Your task to perform on an android device: Set the phone to "Do not disturb". Image 0: 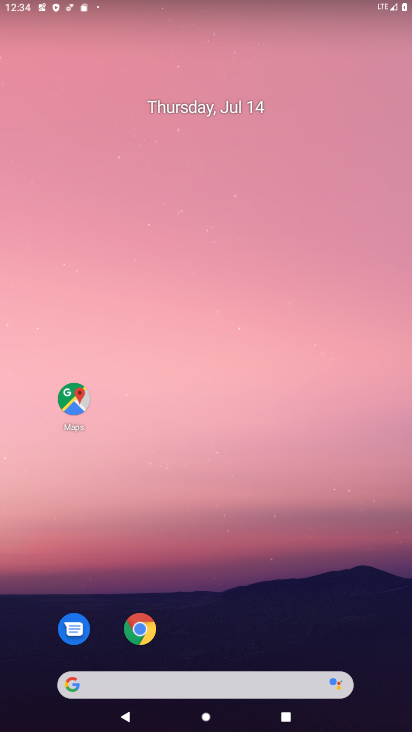
Step 0: drag from (238, 459) to (6, 258)
Your task to perform on an android device: Set the phone to "Do not disturb". Image 1: 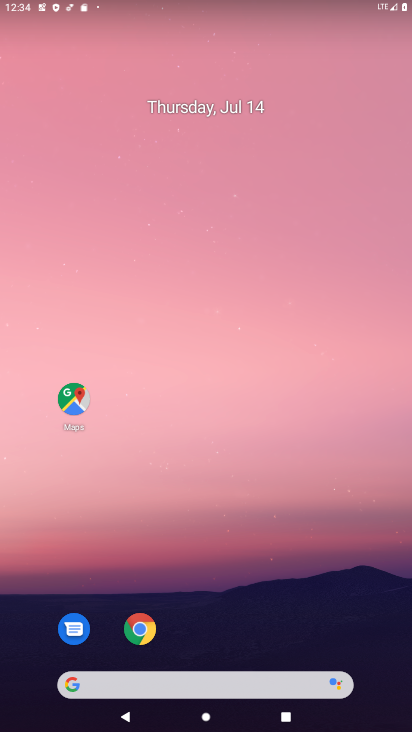
Step 1: drag from (296, 605) to (259, 51)
Your task to perform on an android device: Set the phone to "Do not disturb". Image 2: 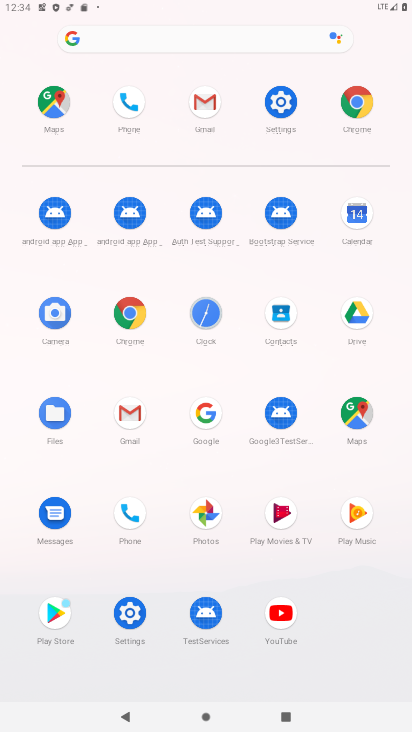
Step 2: click (294, 96)
Your task to perform on an android device: Set the phone to "Do not disturb". Image 3: 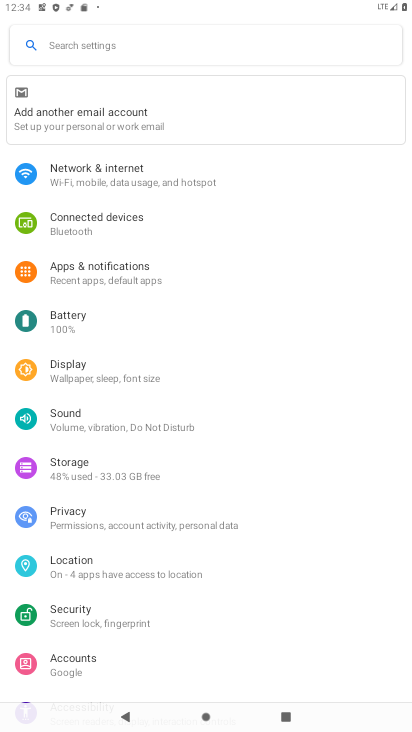
Step 3: drag from (133, 597) to (94, 314)
Your task to perform on an android device: Set the phone to "Do not disturb". Image 4: 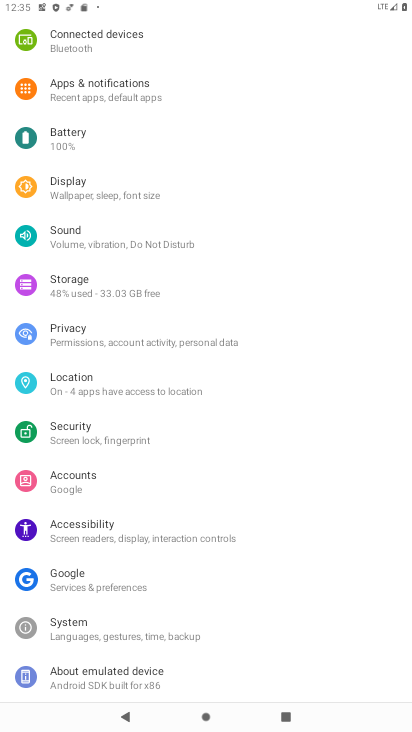
Step 4: click (136, 244)
Your task to perform on an android device: Set the phone to "Do not disturb". Image 5: 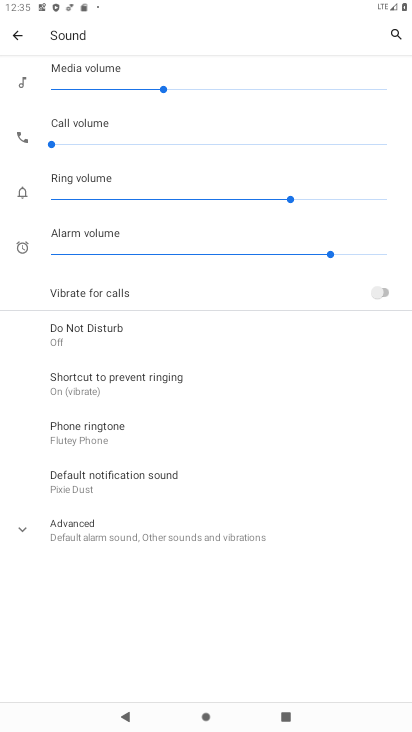
Step 5: click (106, 339)
Your task to perform on an android device: Set the phone to "Do not disturb". Image 6: 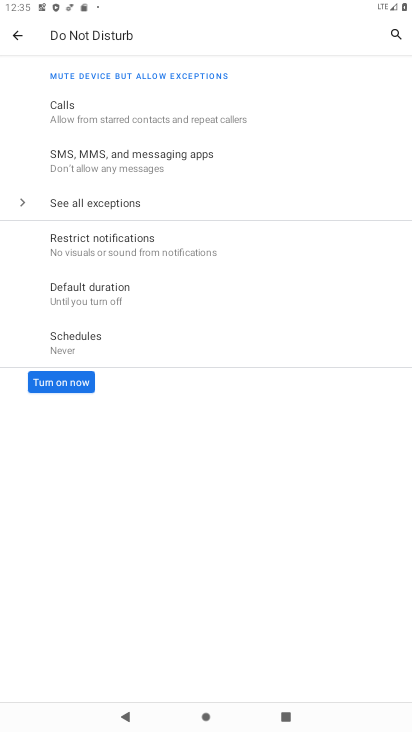
Step 6: click (73, 387)
Your task to perform on an android device: Set the phone to "Do not disturb". Image 7: 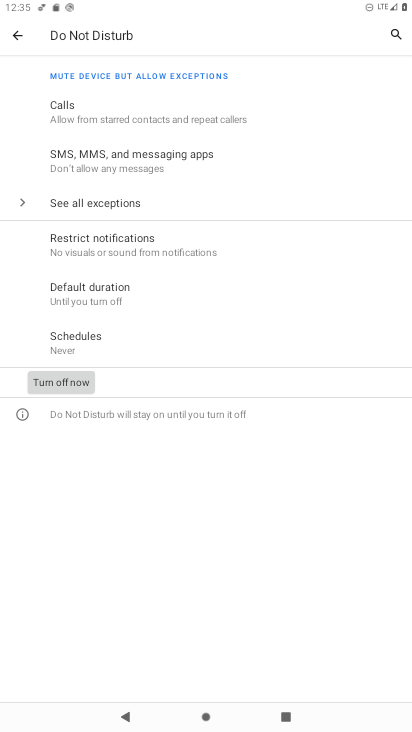
Step 7: task complete